Your task to perform on an android device: turn on javascript in the chrome app Image 0: 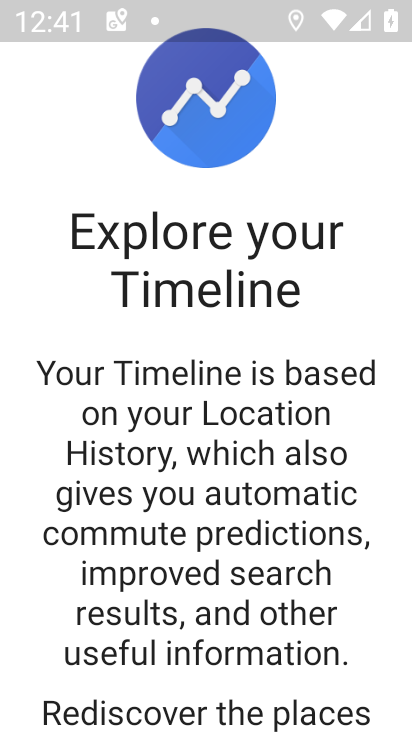
Step 0: press back button
Your task to perform on an android device: turn on javascript in the chrome app Image 1: 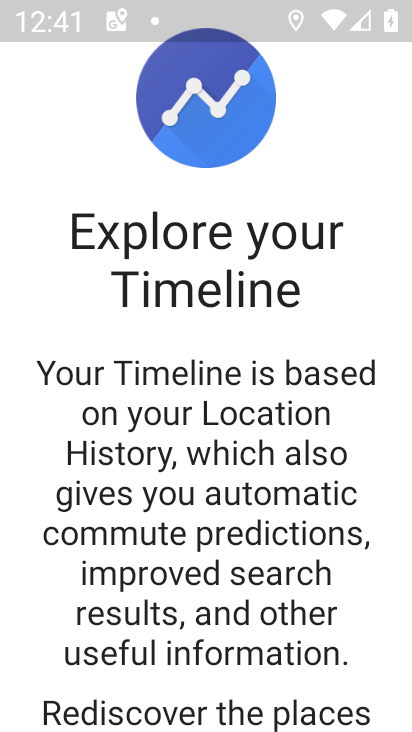
Step 1: press back button
Your task to perform on an android device: turn on javascript in the chrome app Image 2: 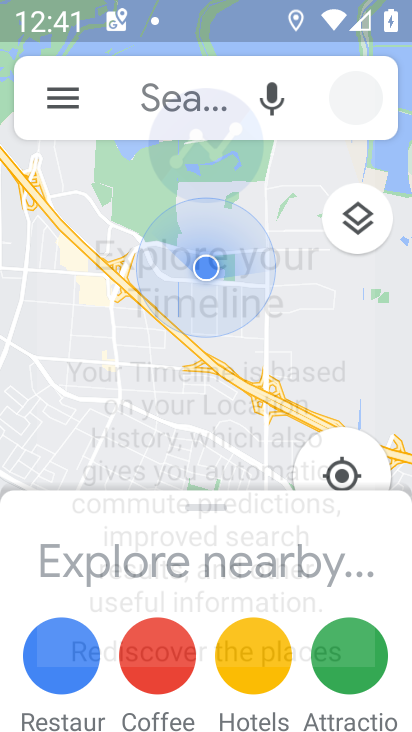
Step 2: press back button
Your task to perform on an android device: turn on javascript in the chrome app Image 3: 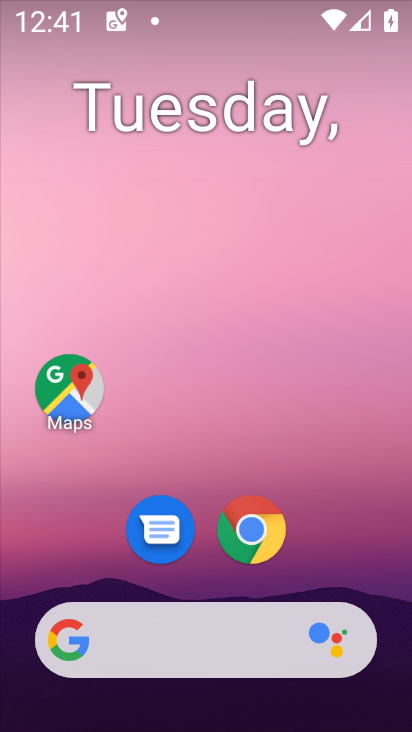
Step 3: click (253, 538)
Your task to perform on an android device: turn on javascript in the chrome app Image 4: 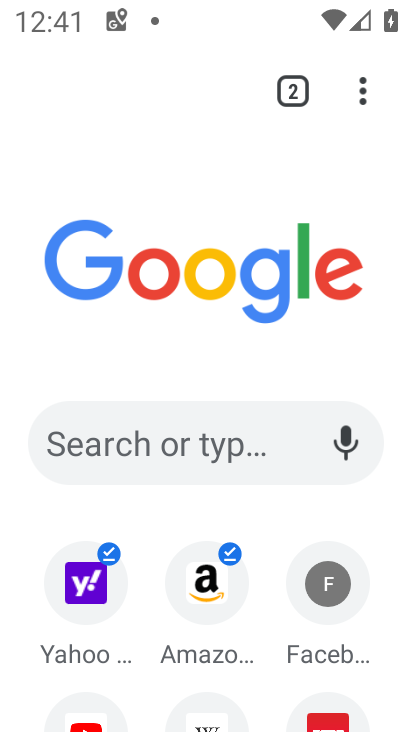
Step 4: drag from (357, 82) to (128, 550)
Your task to perform on an android device: turn on javascript in the chrome app Image 5: 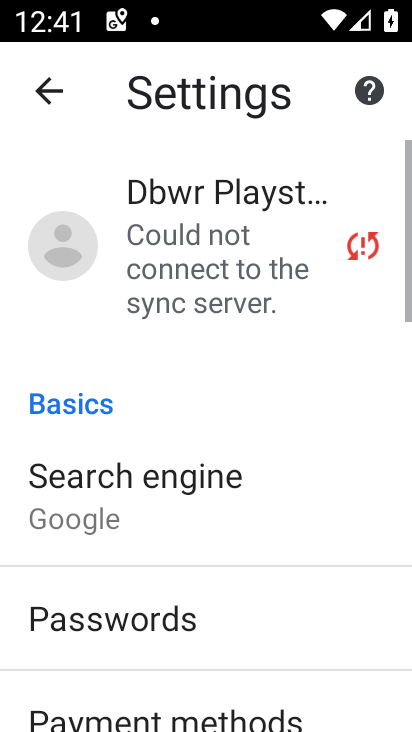
Step 5: drag from (135, 595) to (250, 63)
Your task to perform on an android device: turn on javascript in the chrome app Image 6: 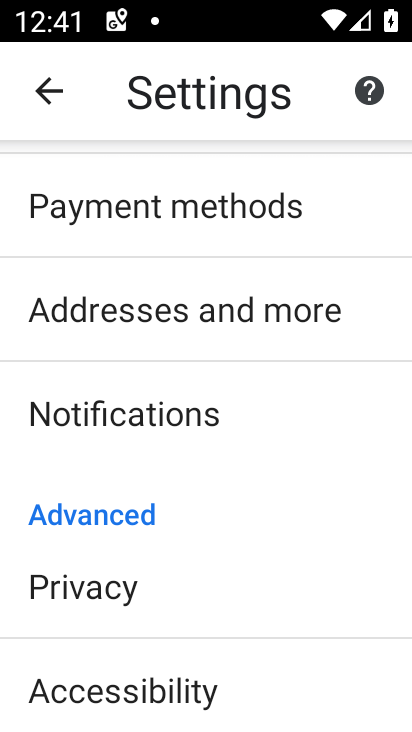
Step 6: drag from (135, 675) to (233, 198)
Your task to perform on an android device: turn on javascript in the chrome app Image 7: 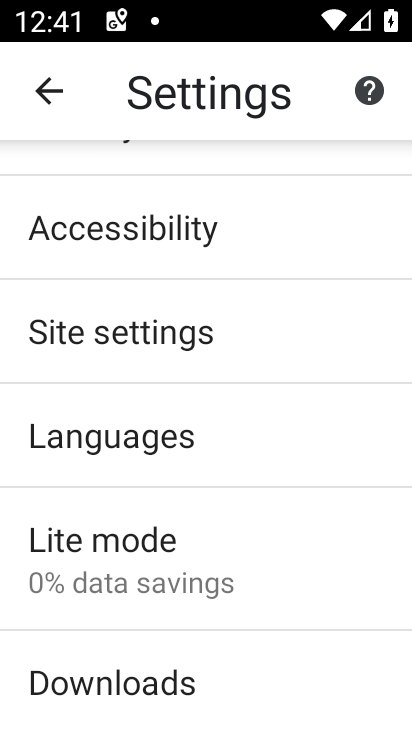
Step 7: click (93, 335)
Your task to perform on an android device: turn on javascript in the chrome app Image 8: 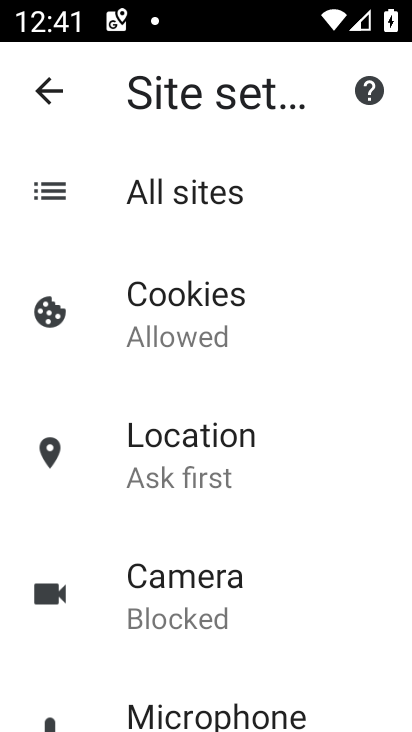
Step 8: drag from (192, 667) to (284, 266)
Your task to perform on an android device: turn on javascript in the chrome app Image 9: 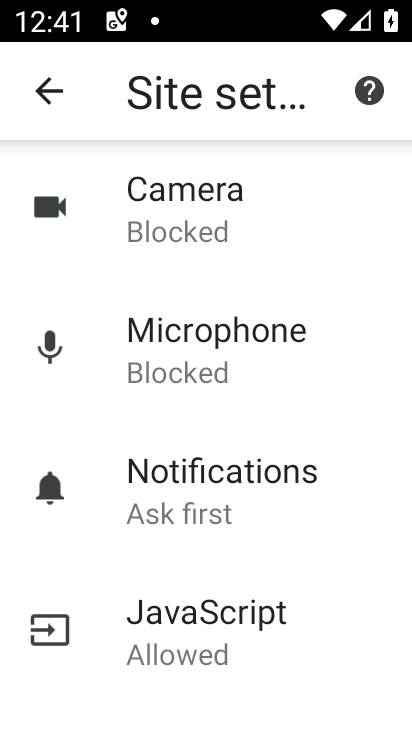
Step 9: click (149, 617)
Your task to perform on an android device: turn on javascript in the chrome app Image 10: 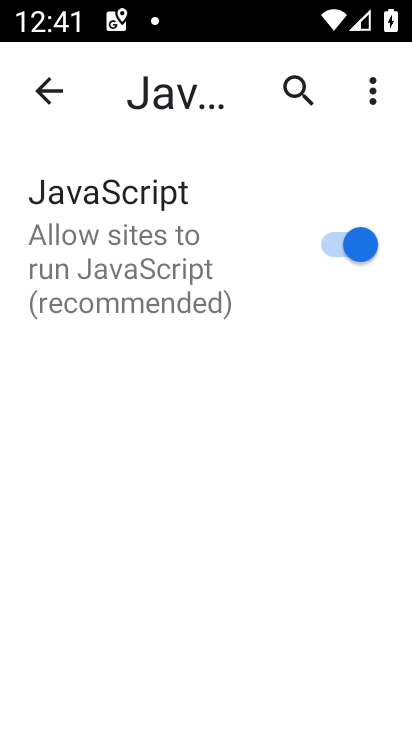
Step 10: task complete